Your task to perform on an android device: Clear all items from cart on ebay. Search for "macbook pro 13 inch" on ebay, select the first entry, add it to the cart, then select checkout. Image 0: 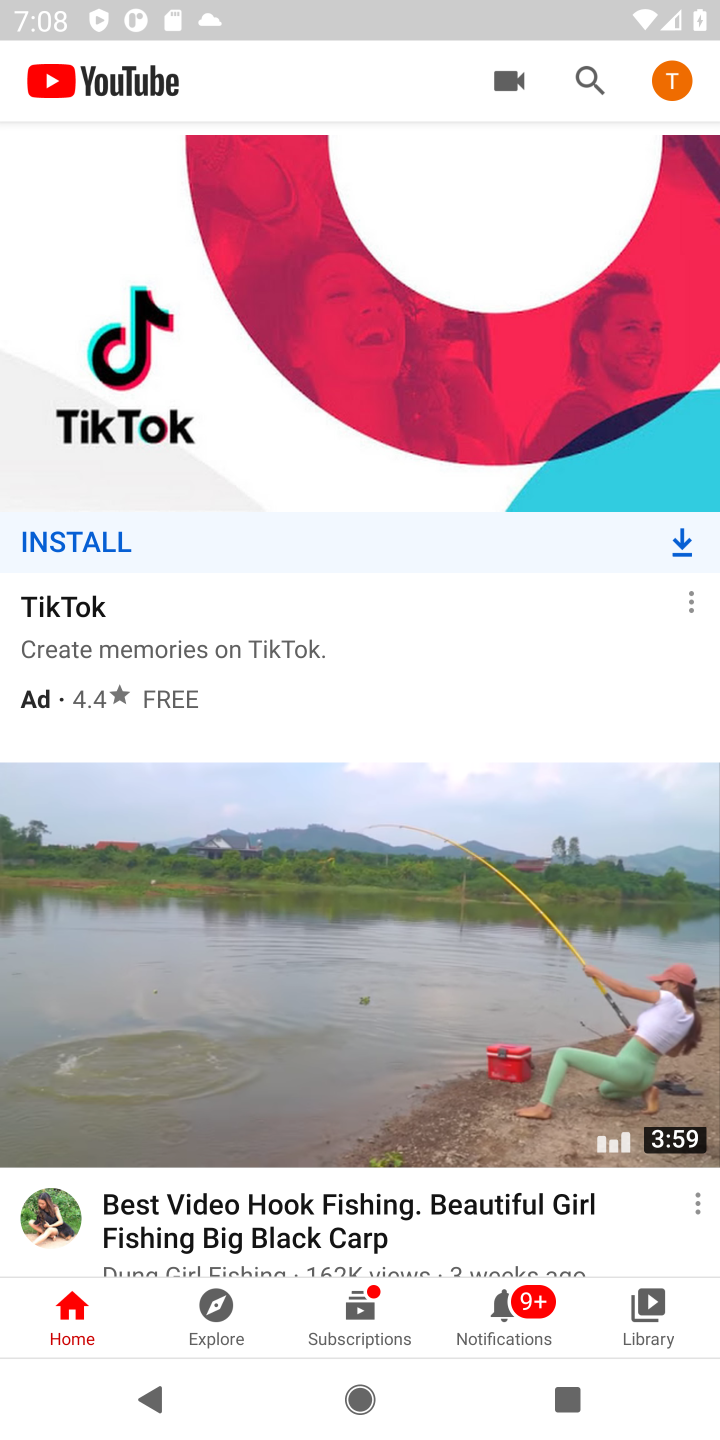
Step 0: press home button
Your task to perform on an android device: Clear all items from cart on ebay. Search for "macbook pro 13 inch" on ebay, select the first entry, add it to the cart, then select checkout. Image 1: 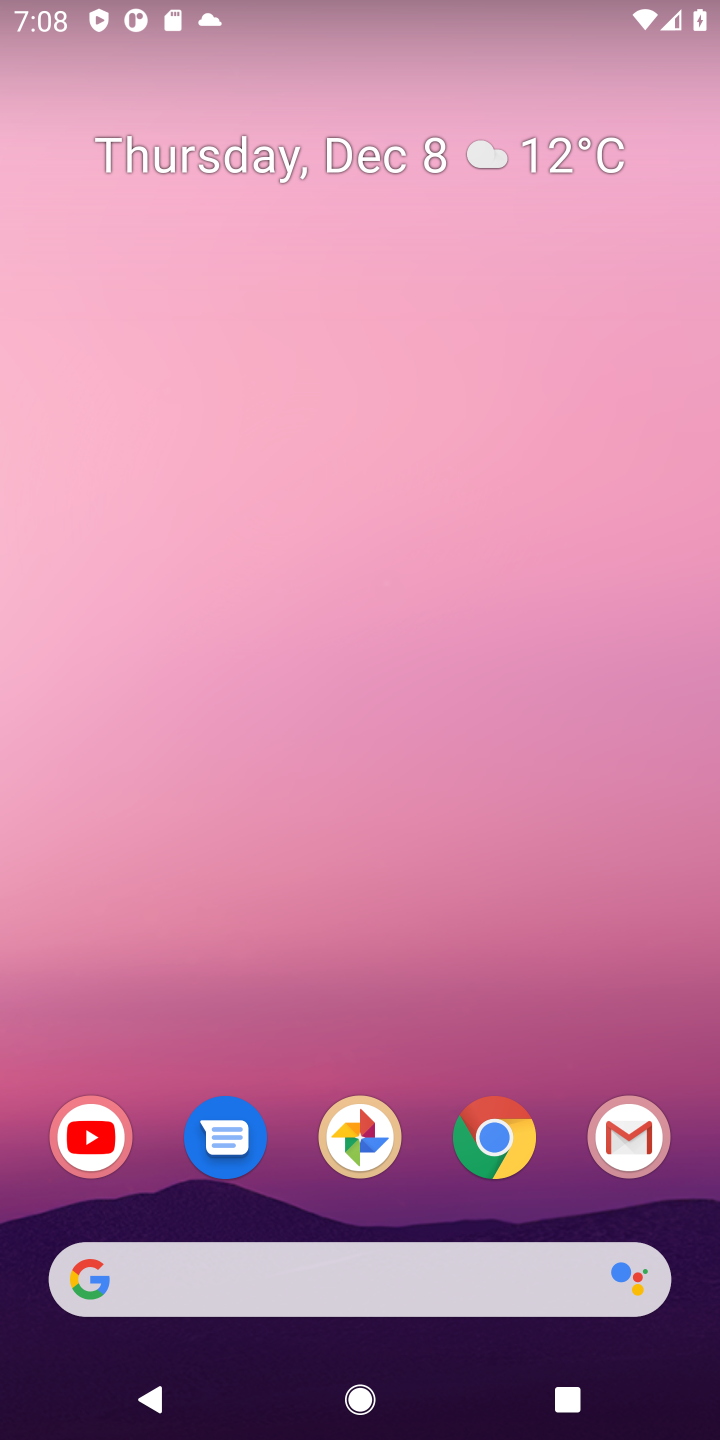
Step 1: click (487, 1136)
Your task to perform on an android device: Clear all items from cart on ebay. Search for "macbook pro 13 inch" on ebay, select the first entry, add it to the cart, then select checkout. Image 2: 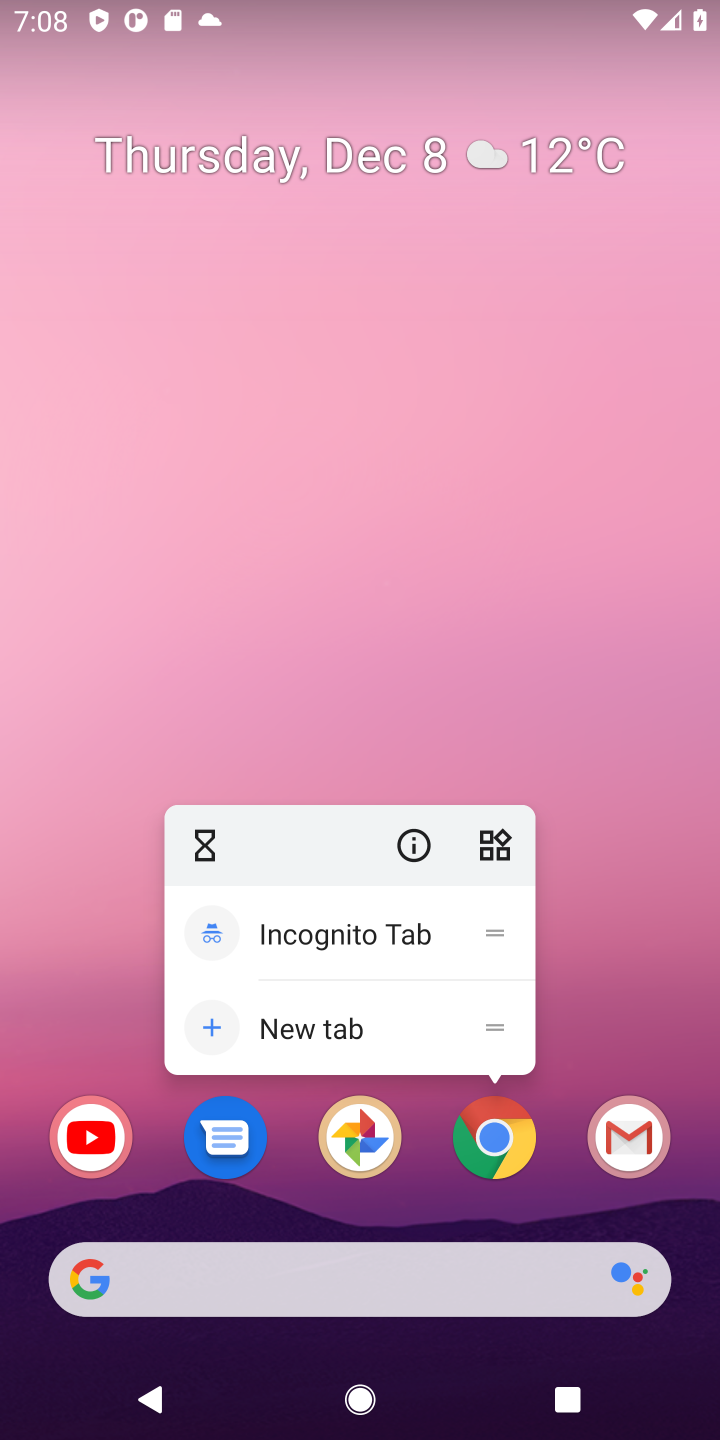
Step 2: click (487, 1136)
Your task to perform on an android device: Clear all items from cart on ebay. Search for "macbook pro 13 inch" on ebay, select the first entry, add it to the cart, then select checkout. Image 3: 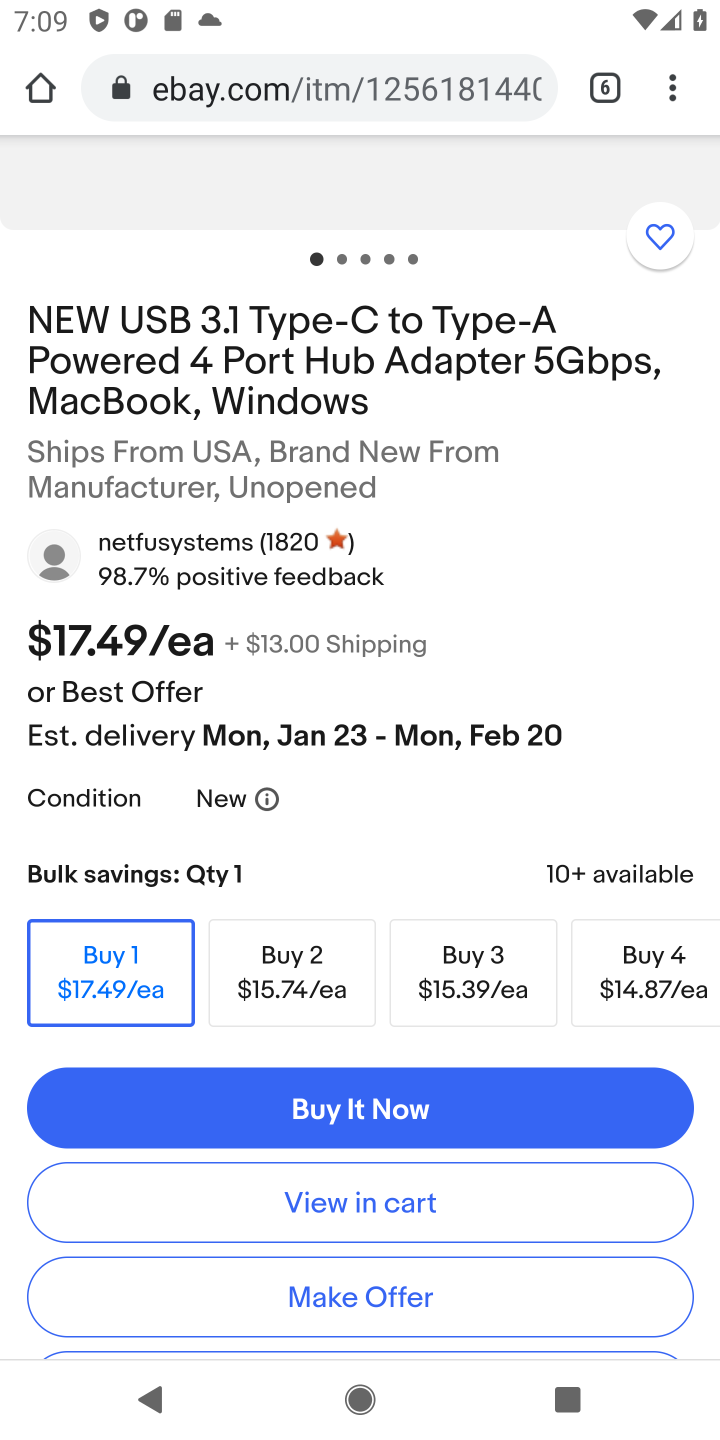
Step 3: drag from (589, 583) to (678, 1013)
Your task to perform on an android device: Clear all items from cart on ebay. Search for "macbook pro 13 inch" on ebay, select the first entry, add it to the cart, then select checkout. Image 4: 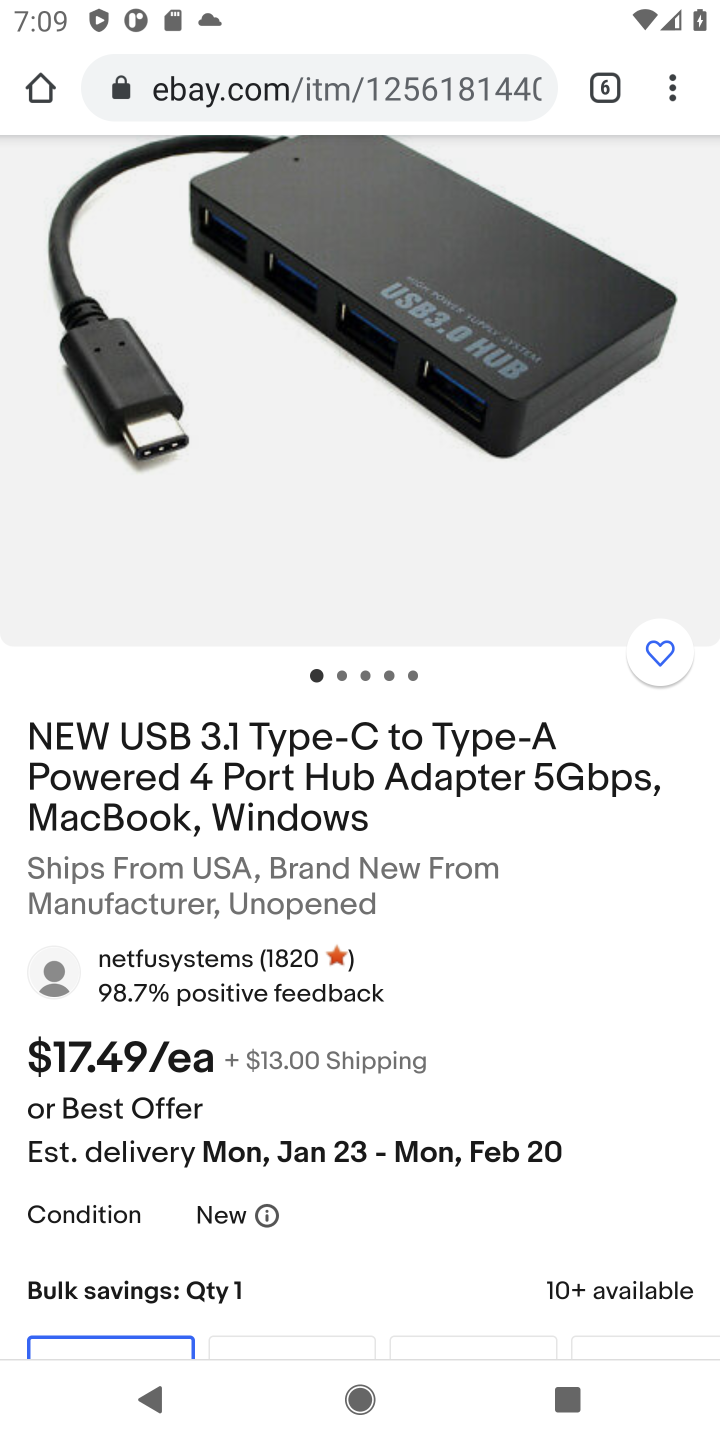
Step 4: drag from (642, 433) to (553, 902)
Your task to perform on an android device: Clear all items from cart on ebay. Search for "macbook pro 13 inch" on ebay, select the first entry, add it to the cart, then select checkout. Image 5: 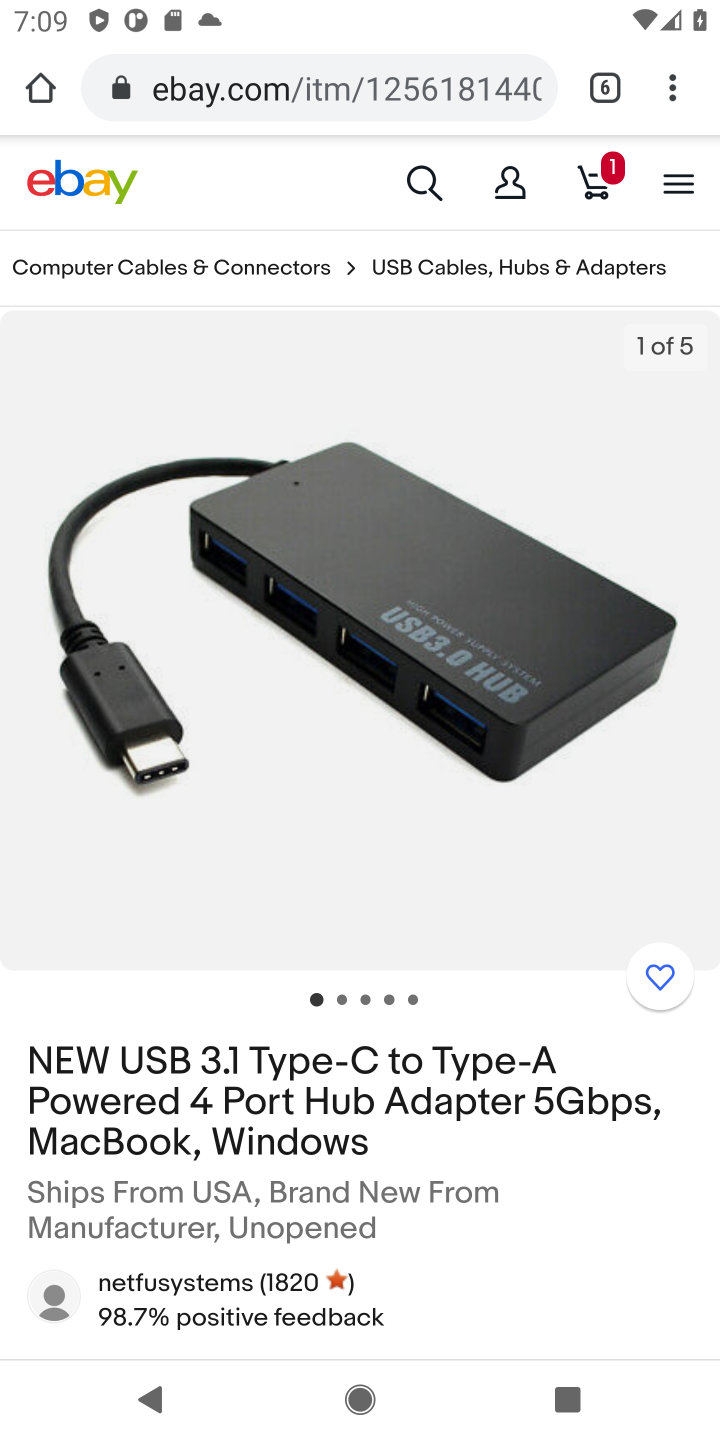
Step 5: drag from (588, 329) to (483, 922)
Your task to perform on an android device: Clear all items from cart on ebay. Search for "macbook pro 13 inch" on ebay, select the first entry, add it to the cart, then select checkout. Image 6: 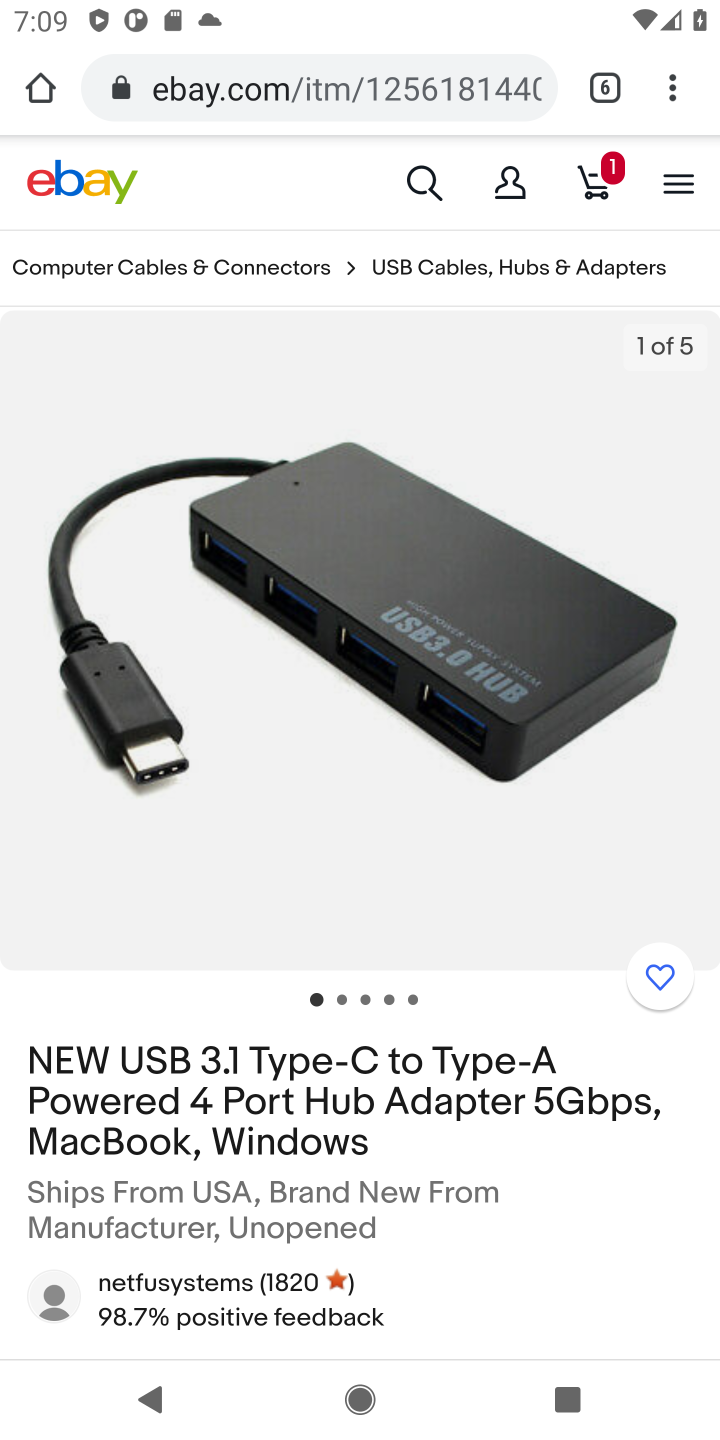
Step 6: click (423, 184)
Your task to perform on an android device: Clear all items from cart on ebay. Search for "macbook pro 13 inch" on ebay, select the first entry, add it to the cart, then select checkout. Image 7: 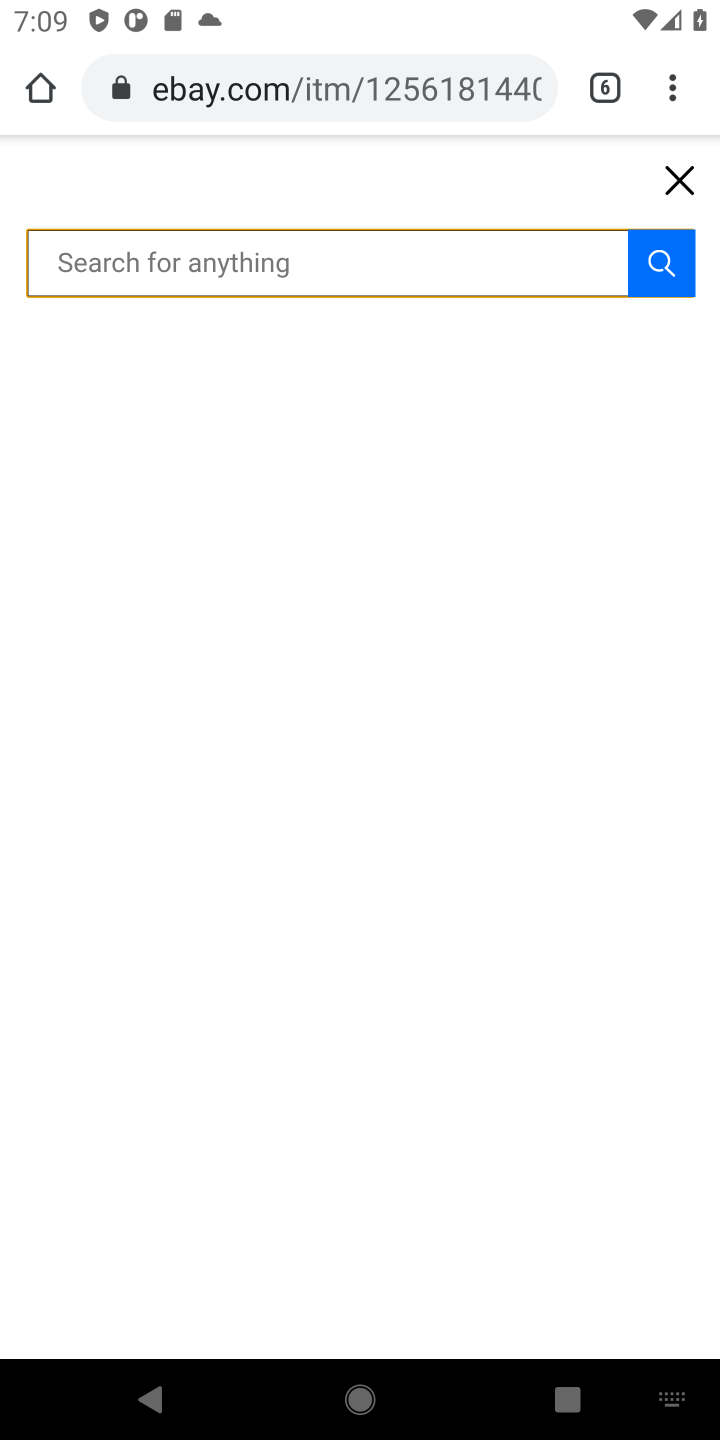
Step 7: type "macbook pro 13 inch"
Your task to perform on an android device: Clear all items from cart on ebay. Search for "macbook pro 13 inch" on ebay, select the first entry, add it to the cart, then select checkout. Image 8: 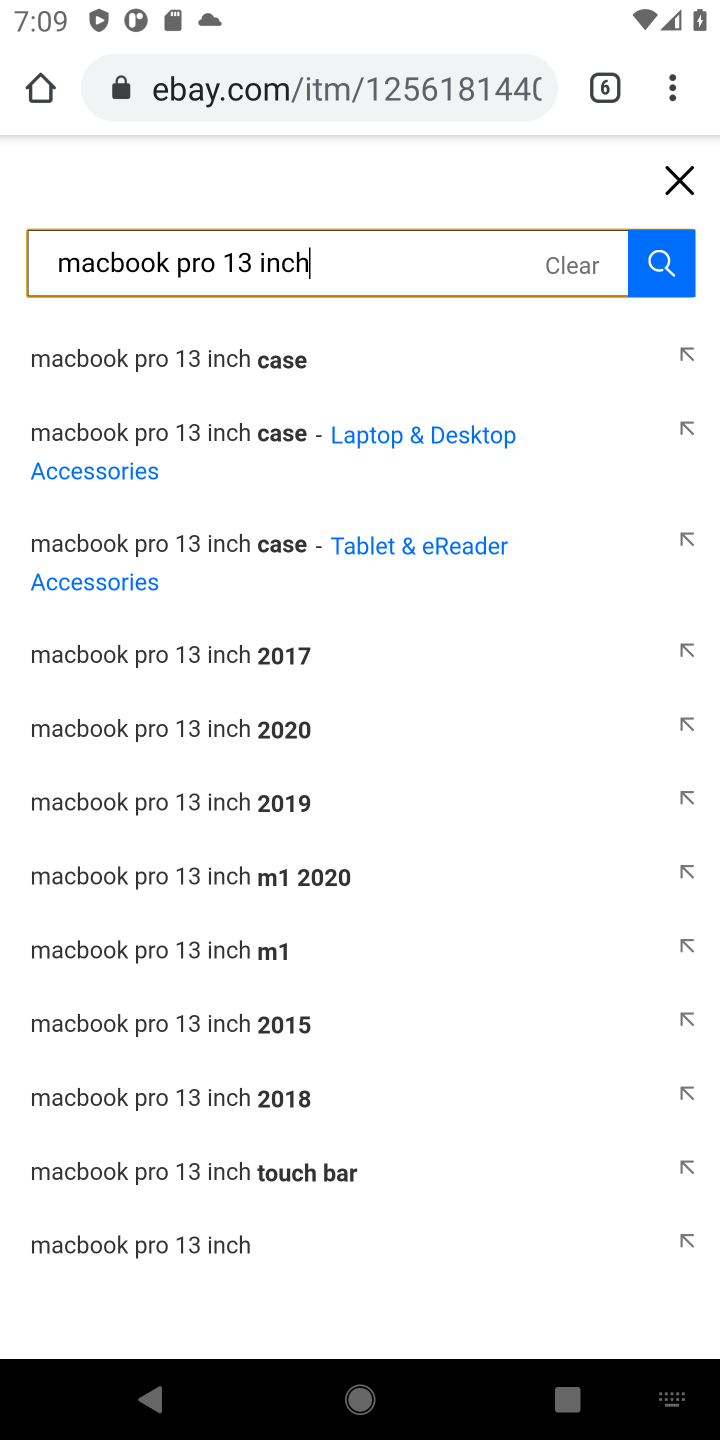
Step 8: click (177, 423)
Your task to perform on an android device: Clear all items from cart on ebay. Search for "macbook pro 13 inch" on ebay, select the first entry, add it to the cart, then select checkout. Image 9: 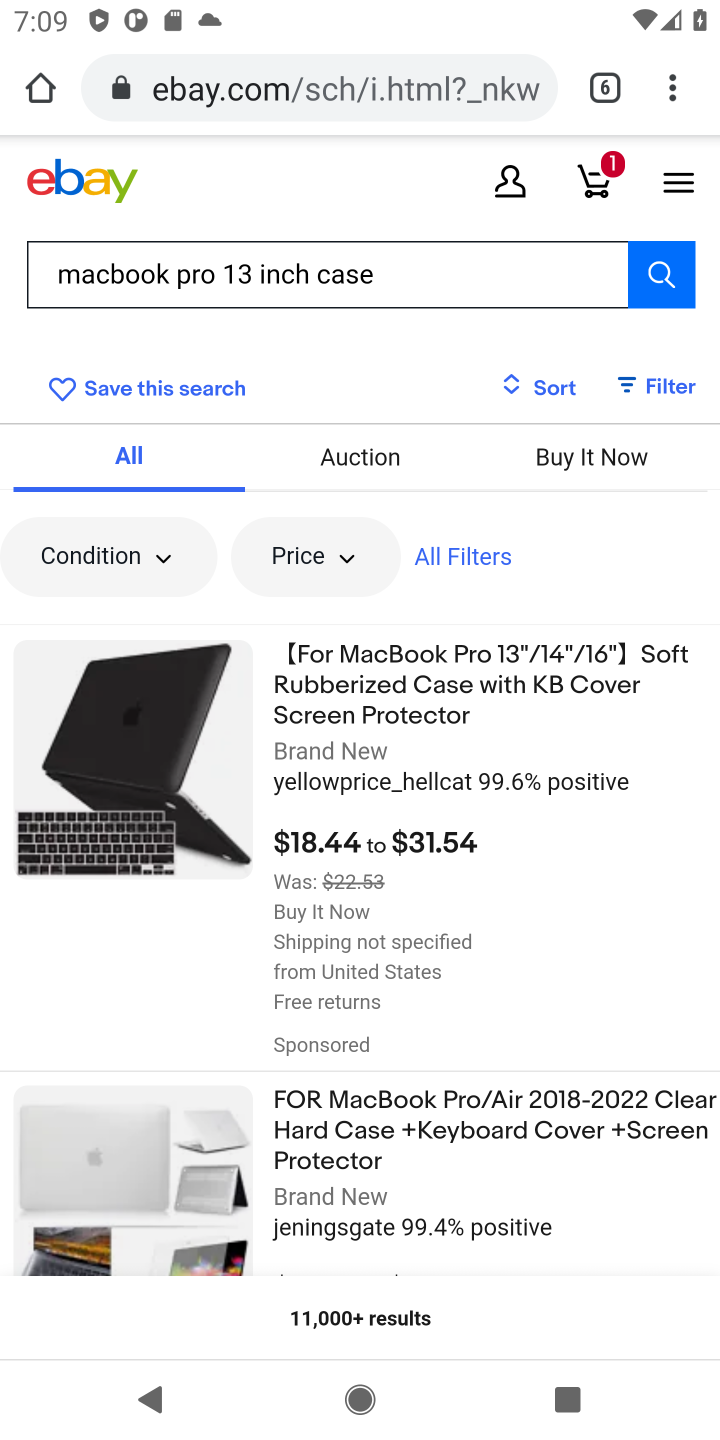
Step 9: click (452, 689)
Your task to perform on an android device: Clear all items from cart on ebay. Search for "macbook pro 13 inch" on ebay, select the first entry, add it to the cart, then select checkout. Image 10: 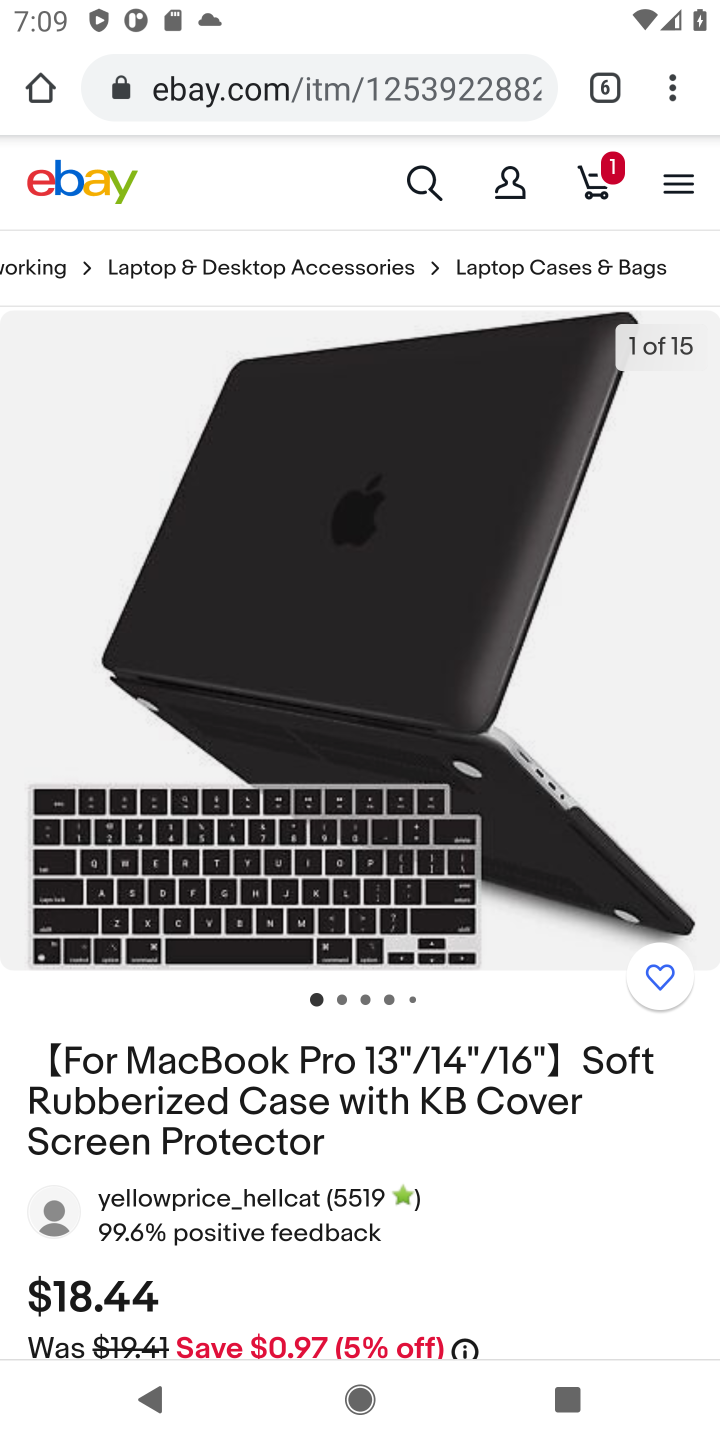
Step 10: drag from (480, 1222) to (528, 696)
Your task to perform on an android device: Clear all items from cart on ebay. Search for "macbook pro 13 inch" on ebay, select the first entry, add it to the cart, then select checkout. Image 11: 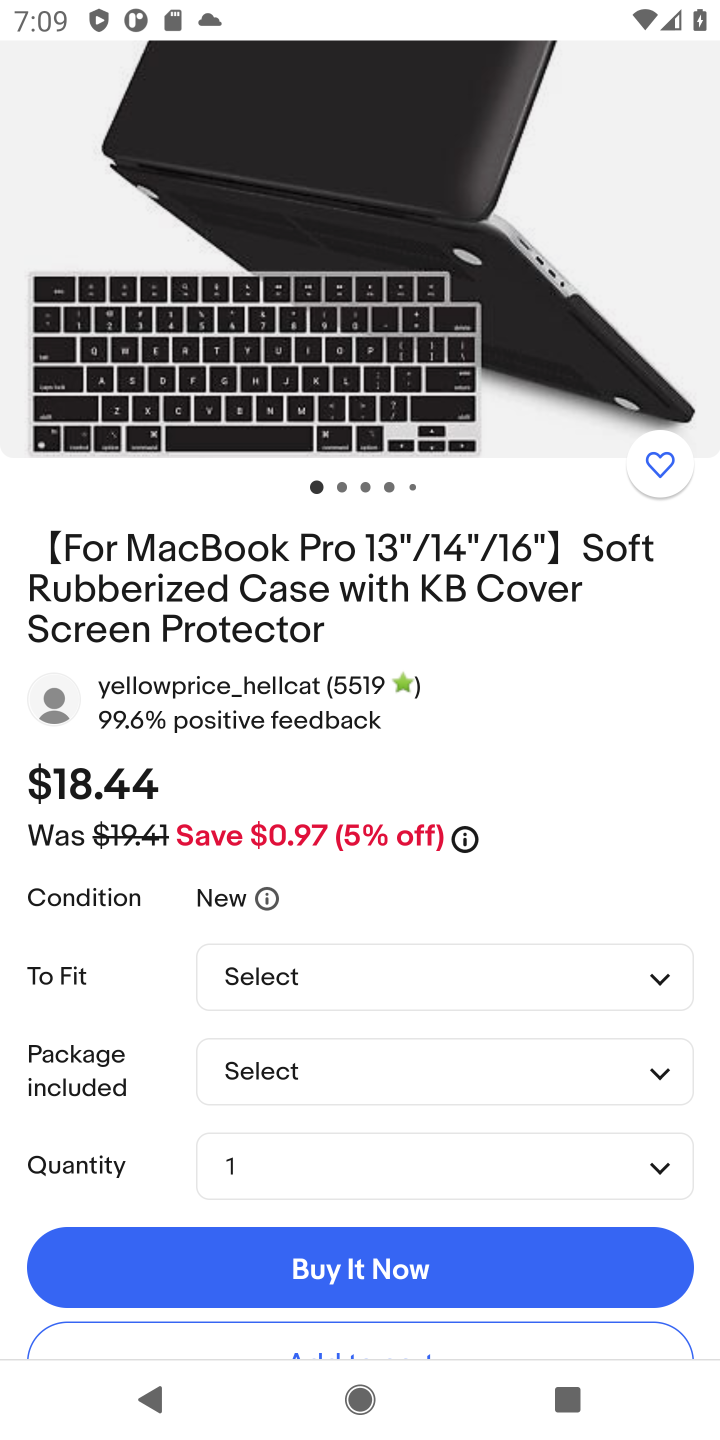
Step 11: click (645, 973)
Your task to perform on an android device: Clear all items from cart on ebay. Search for "macbook pro 13 inch" on ebay, select the first entry, add it to the cart, then select checkout. Image 12: 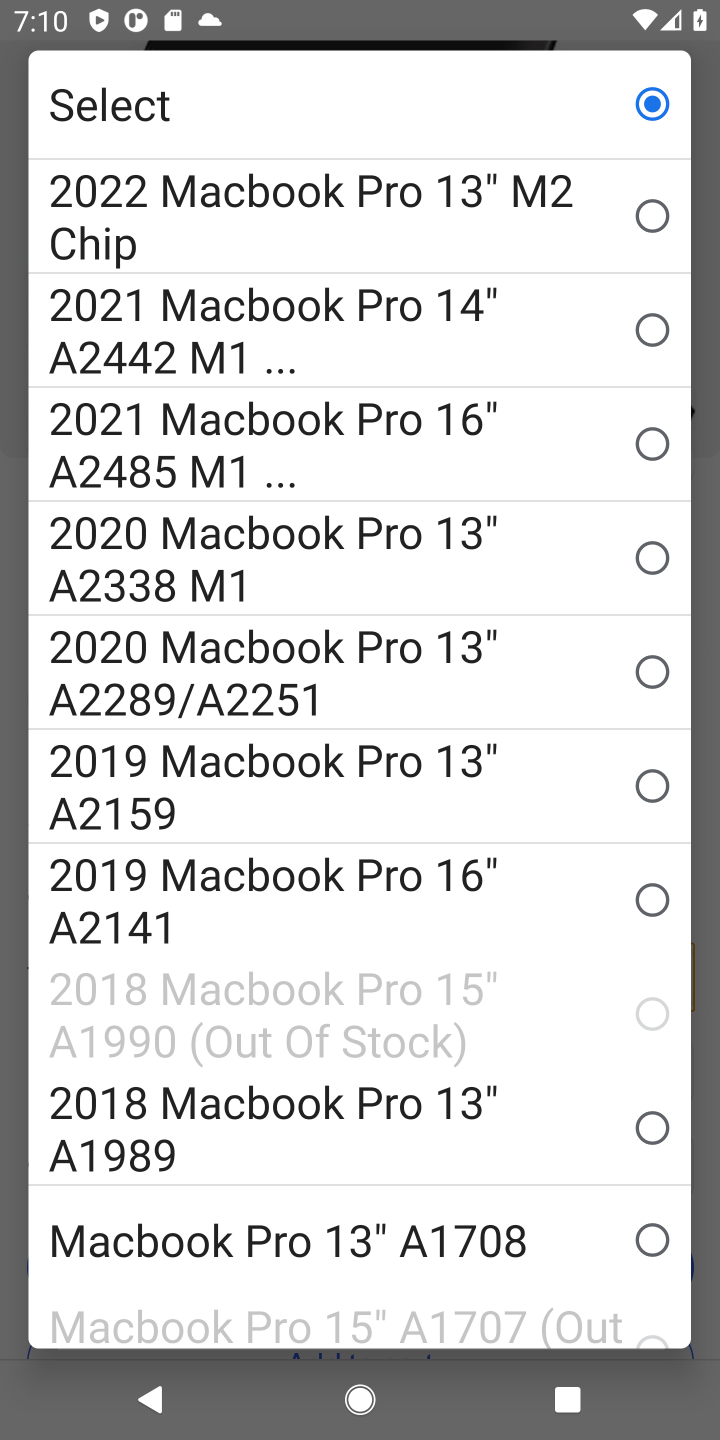
Step 12: click (655, 1232)
Your task to perform on an android device: Clear all items from cart on ebay. Search for "macbook pro 13 inch" on ebay, select the first entry, add it to the cart, then select checkout. Image 13: 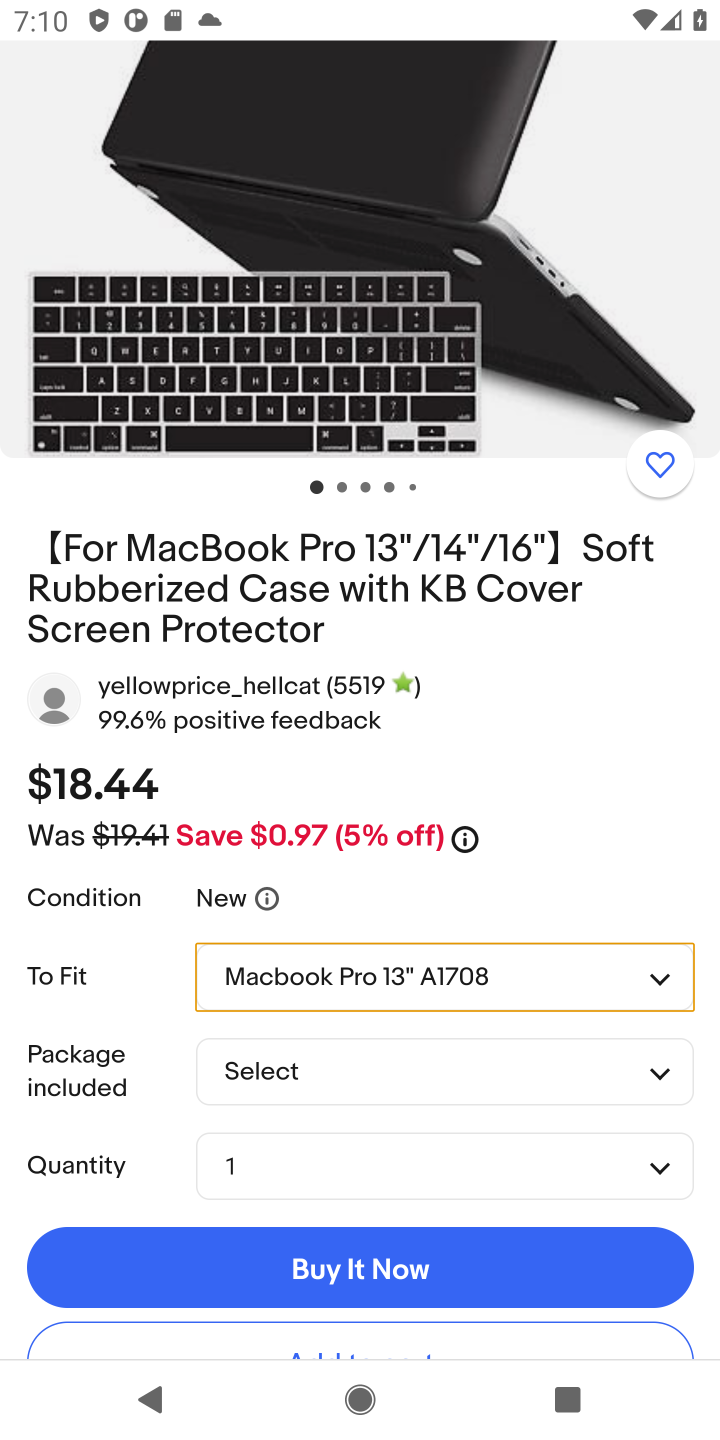
Step 13: click (656, 1074)
Your task to perform on an android device: Clear all items from cart on ebay. Search for "macbook pro 13 inch" on ebay, select the first entry, add it to the cart, then select checkout. Image 14: 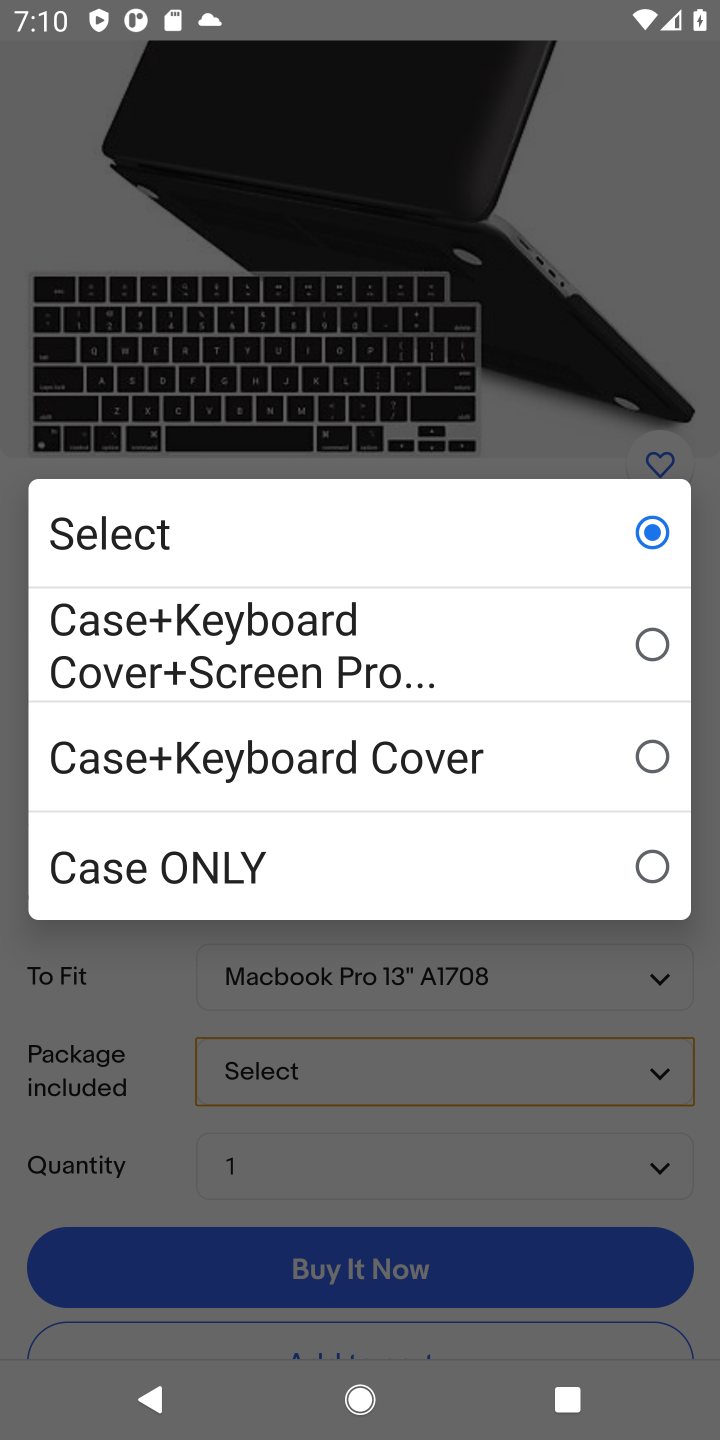
Step 14: click (654, 649)
Your task to perform on an android device: Clear all items from cart on ebay. Search for "macbook pro 13 inch" on ebay, select the first entry, add it to the cart, then select checkout. Image 15: 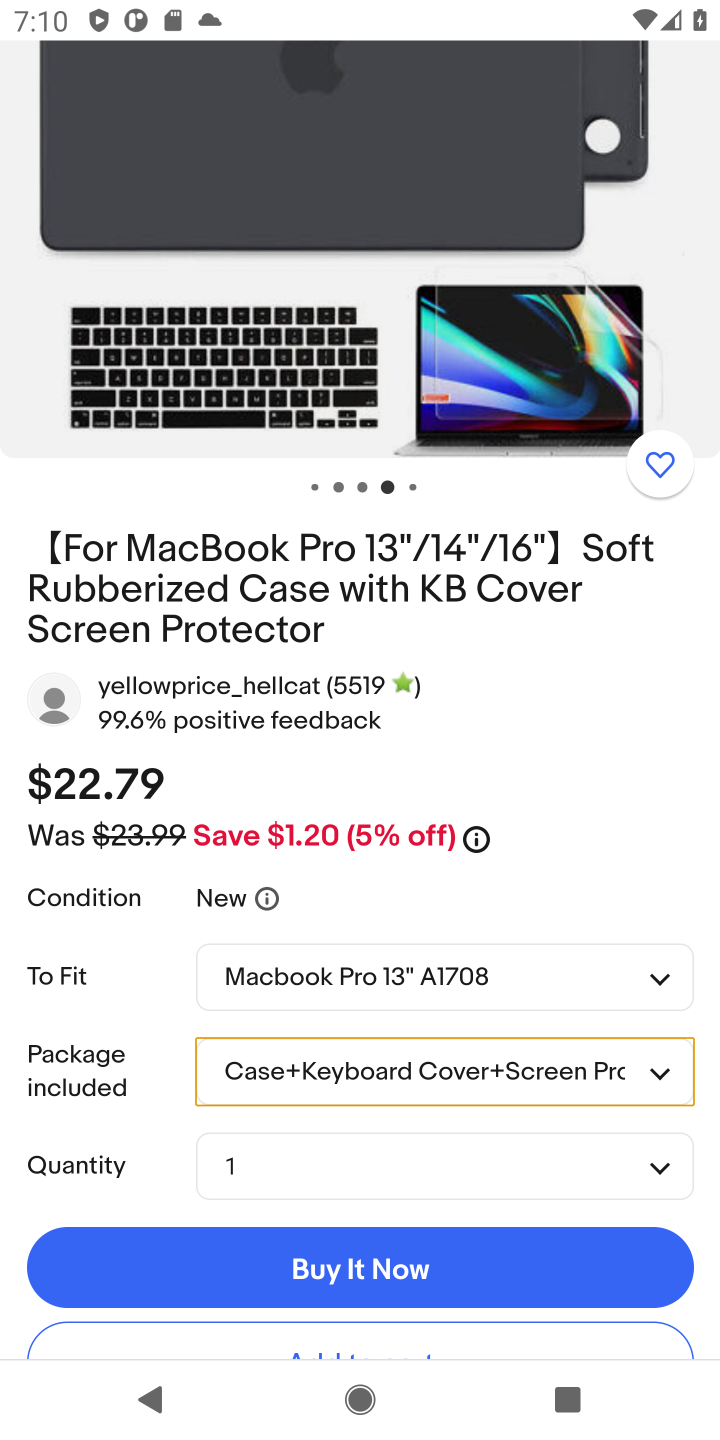
Step 15: drag from (114, 1142) to (257, 519)
Your task to perform on an android device: Clear all items from cart on ebay. Search for "macbook pro 13 inch" on ebay, select the first entry, add it to the cart, then select checkout. Image 16: 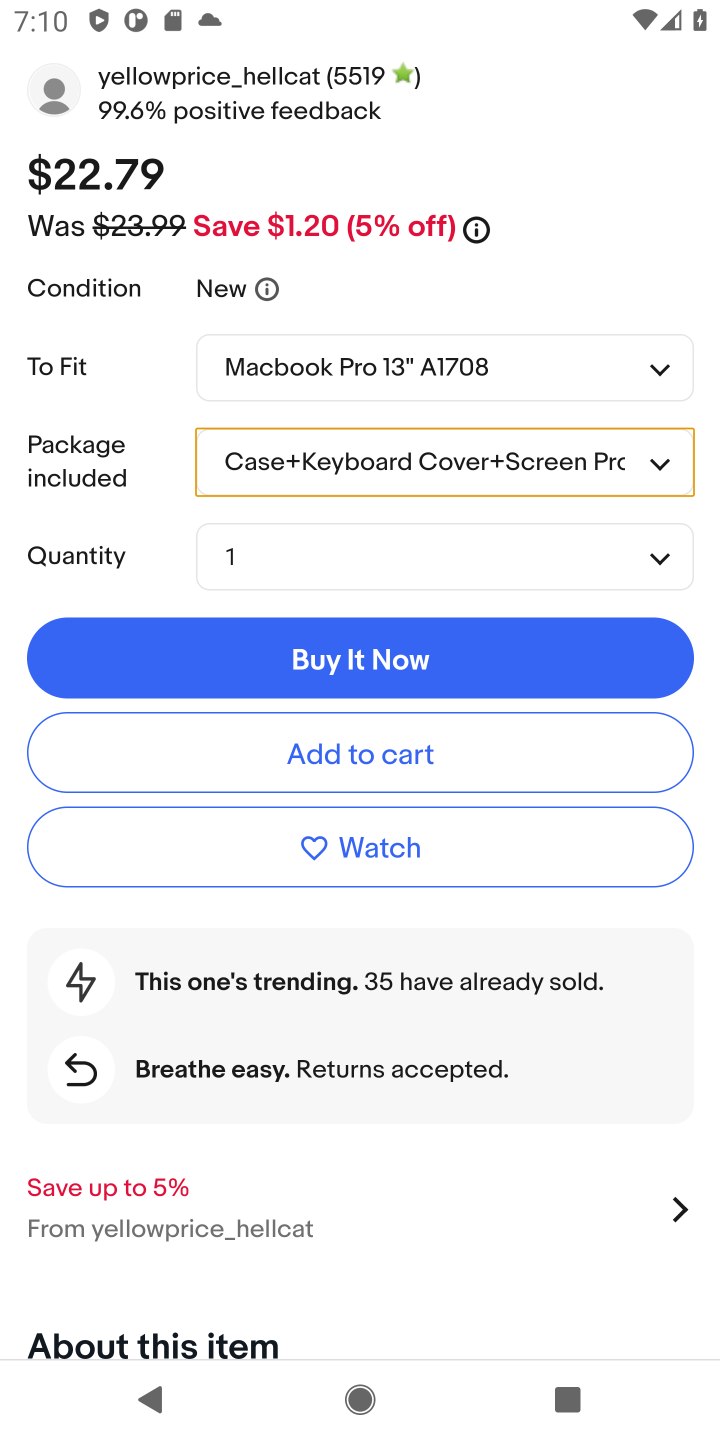
Step 16: click (435, 757)
Your task to perform on an android device: Clear all items from cart on ebay. Search for "macbook pro 13 inch" on ebay, select the first entry, add it to the cart, then select checkout. Image 17: 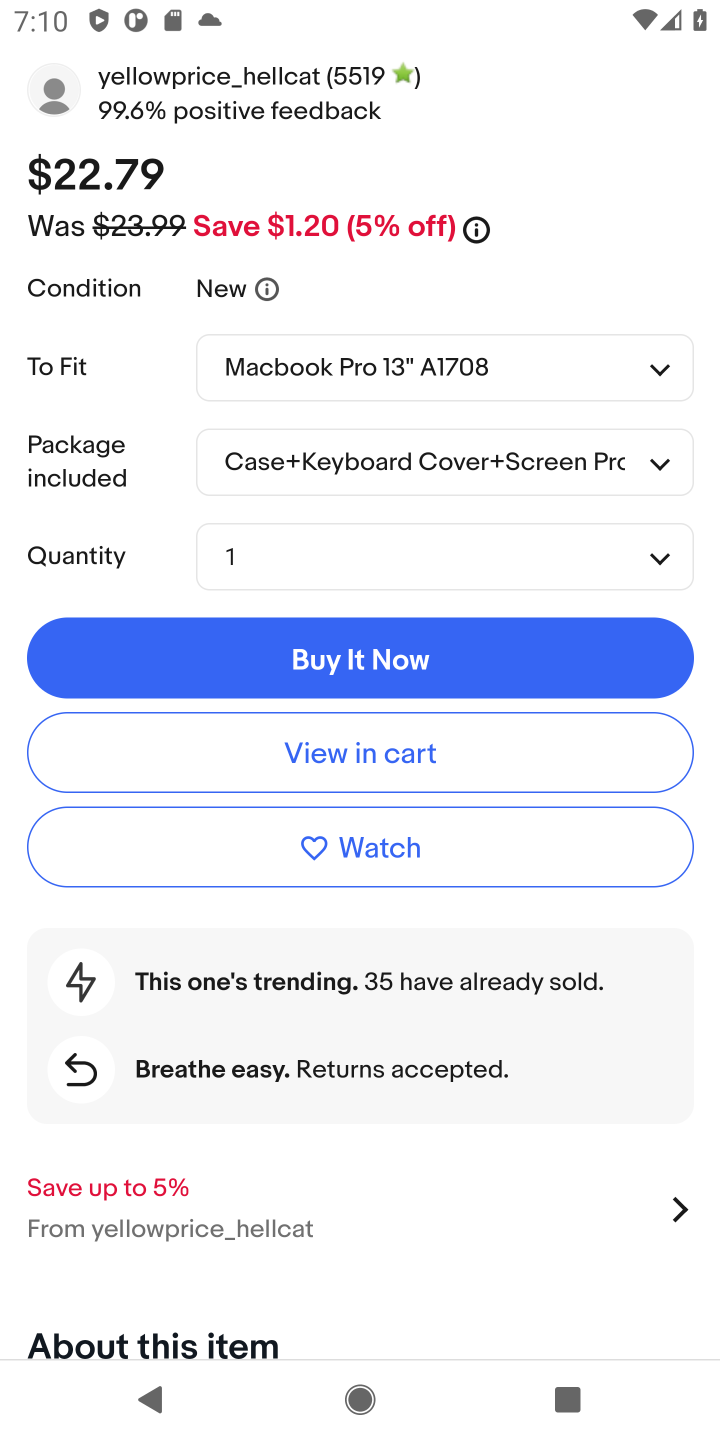
Step 17: task complete